Your task to perform on an android device: What's the weather? Image 0: 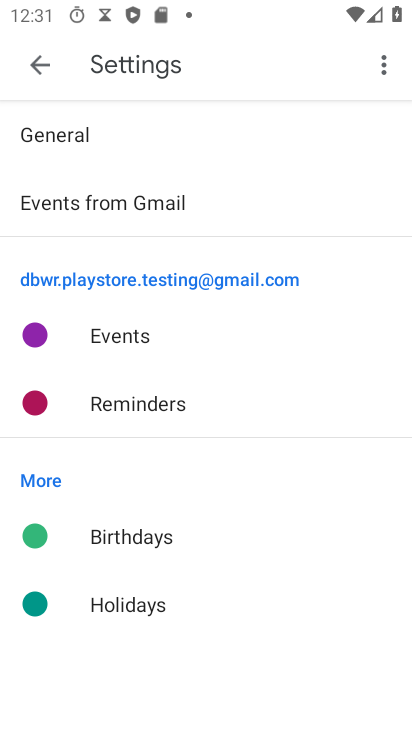
Step 0: press back button
Your task to perform on an android device: What's the weather? Image 1: 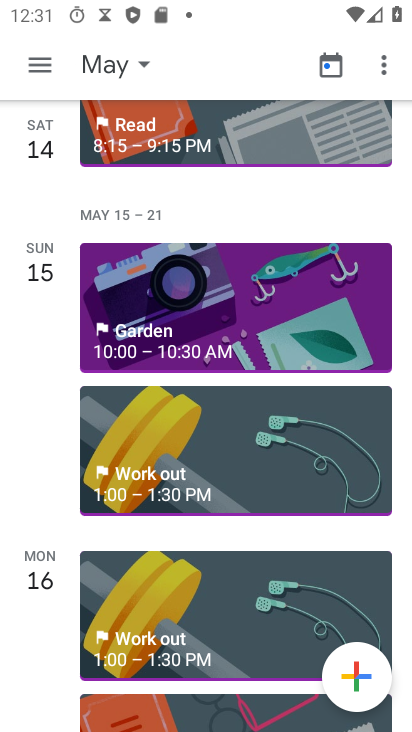
Step 1: press home button
Your task to perform on an android device: What's the weather? Image 2: 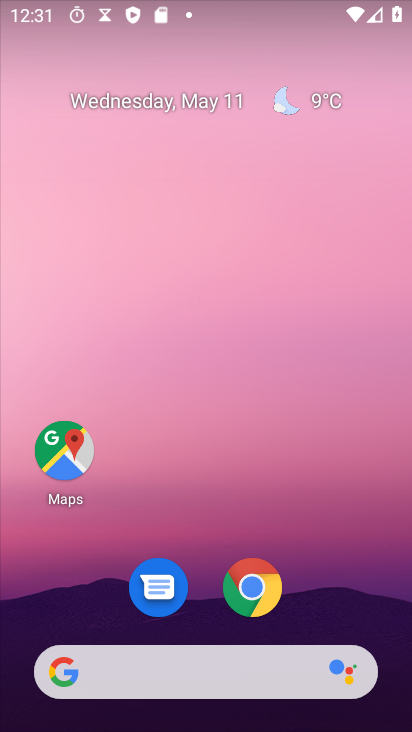
Step 2: drag from (7, 286) to (400, 468)
Your task to perform on an android device: What's the weather? Image 3: 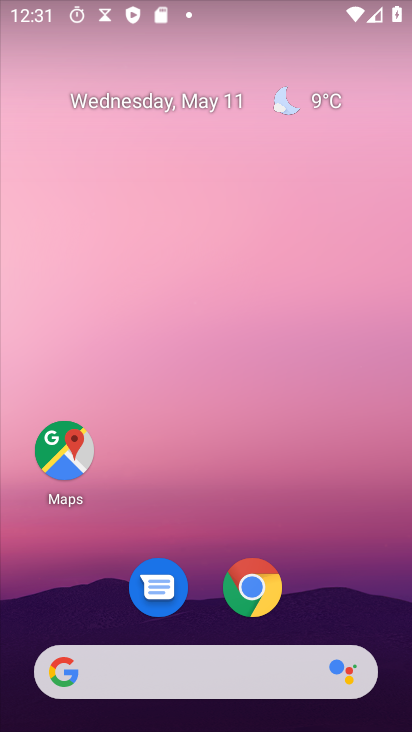
Step 3: click (284, 91)
Your task to perform on an android device: What's the weather? Image 4: 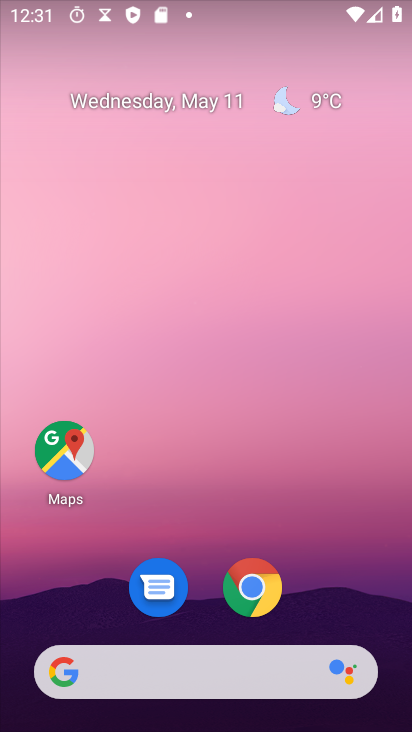
Step 4: click (284, 91)
Your task to perform on an android device: What's the weather? Image 5: 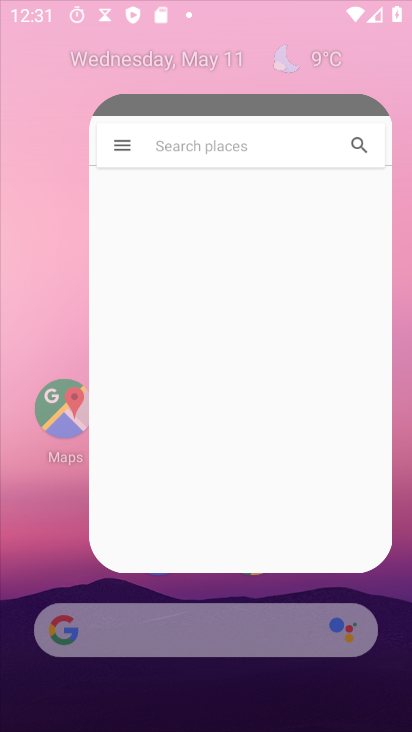
Step 5: click (273, 94)
Your task to perform on an android device: What's the weather? Image 6: 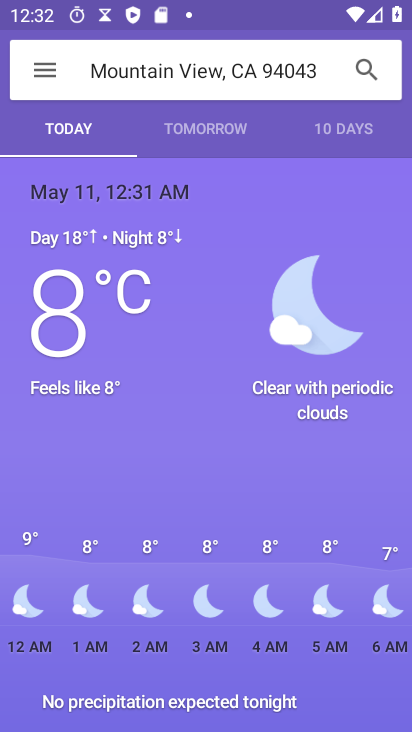
Step 6: task complete